Your task to perform on an android device: move a message to another label in the gmail app Image 0: 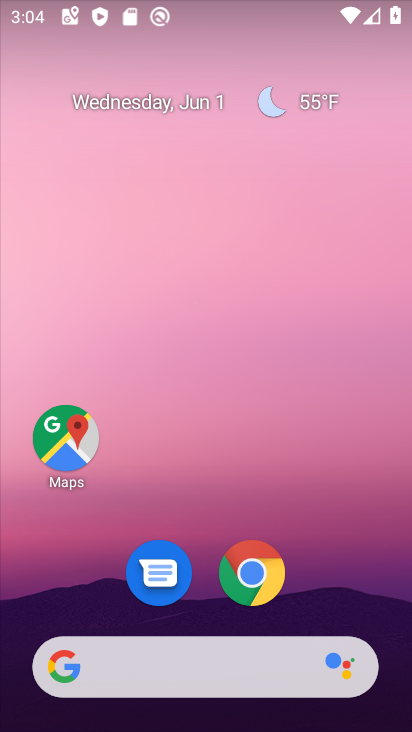
Step 0: drag from (153, 728) to (188, 168)
Your task to perform on an android device: move a message to another label in the gmail app Image 1: 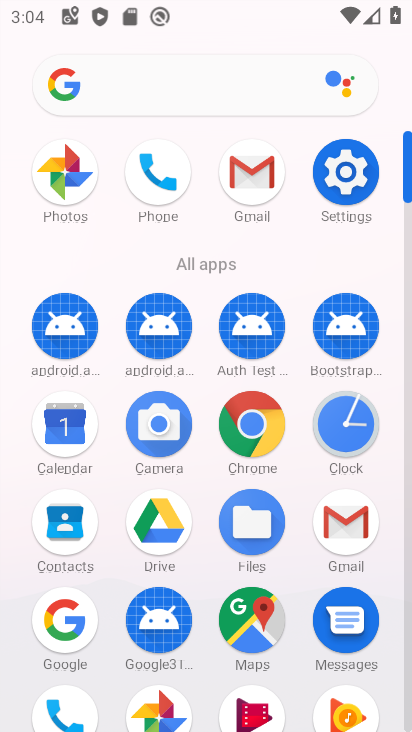
Step 1: click (334, 521)
Your task to perform on an android device: move a message to another label in the gmail app Image 2: 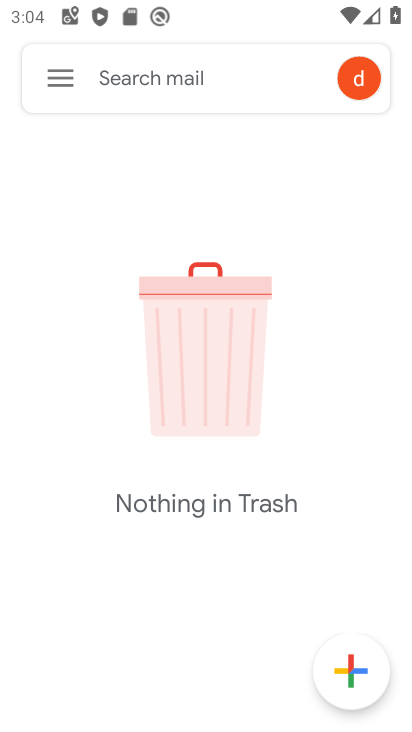
Step 2: click (48, 70)
Your task to perform on an android device: move a message to another label in the gmail app Image 3: 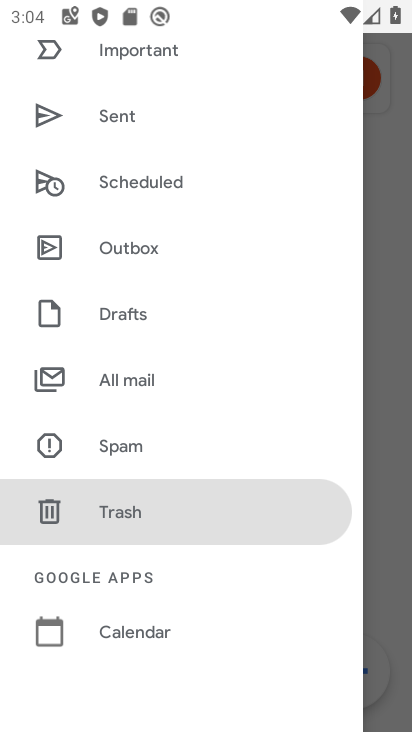
Step 3: click (148, 387)
Your task to perform on an android device: move a message to another label in the gmail app Image 4: 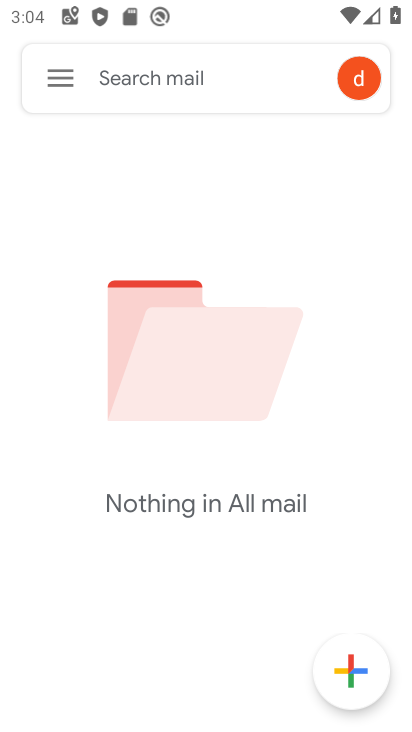
Step 4: click (64, 80)
Your task to perform on an android device: move a message to another label in the gmail app Image 5: 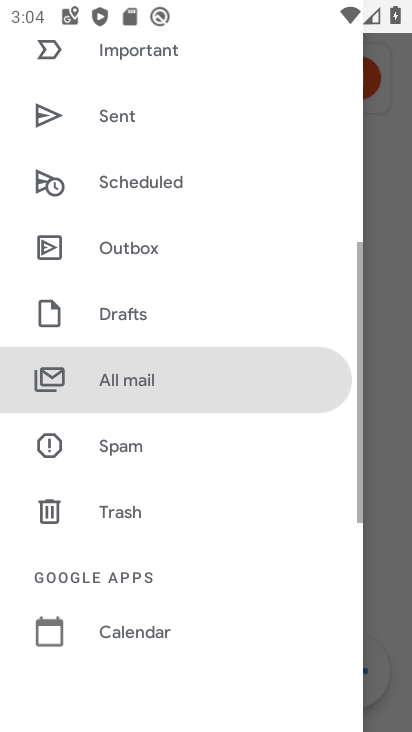
Step 5: drag from (197, 117) to (225, 636)
Your task to perform on an android device: move a message to another label in the gmail app Image 6: 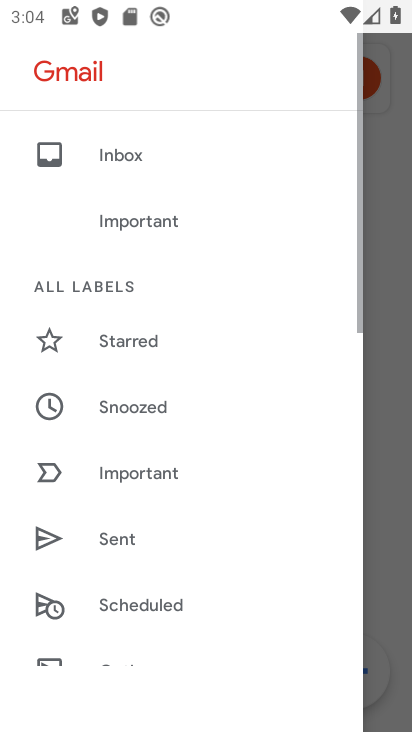
Step 6: click (141, 165)
Your task to perform on an android device: move a message to another label in the gmail app Image 7: 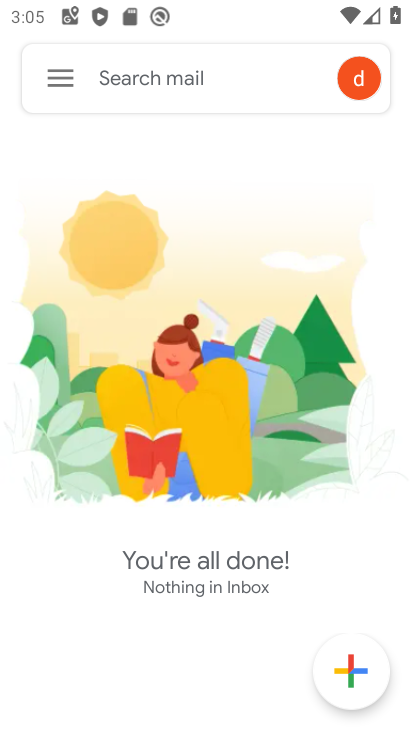
Step 7: task complete